Your task to perform on an android device: Add energizer triple a to the cart on newegg, then select checkout. Image 0: 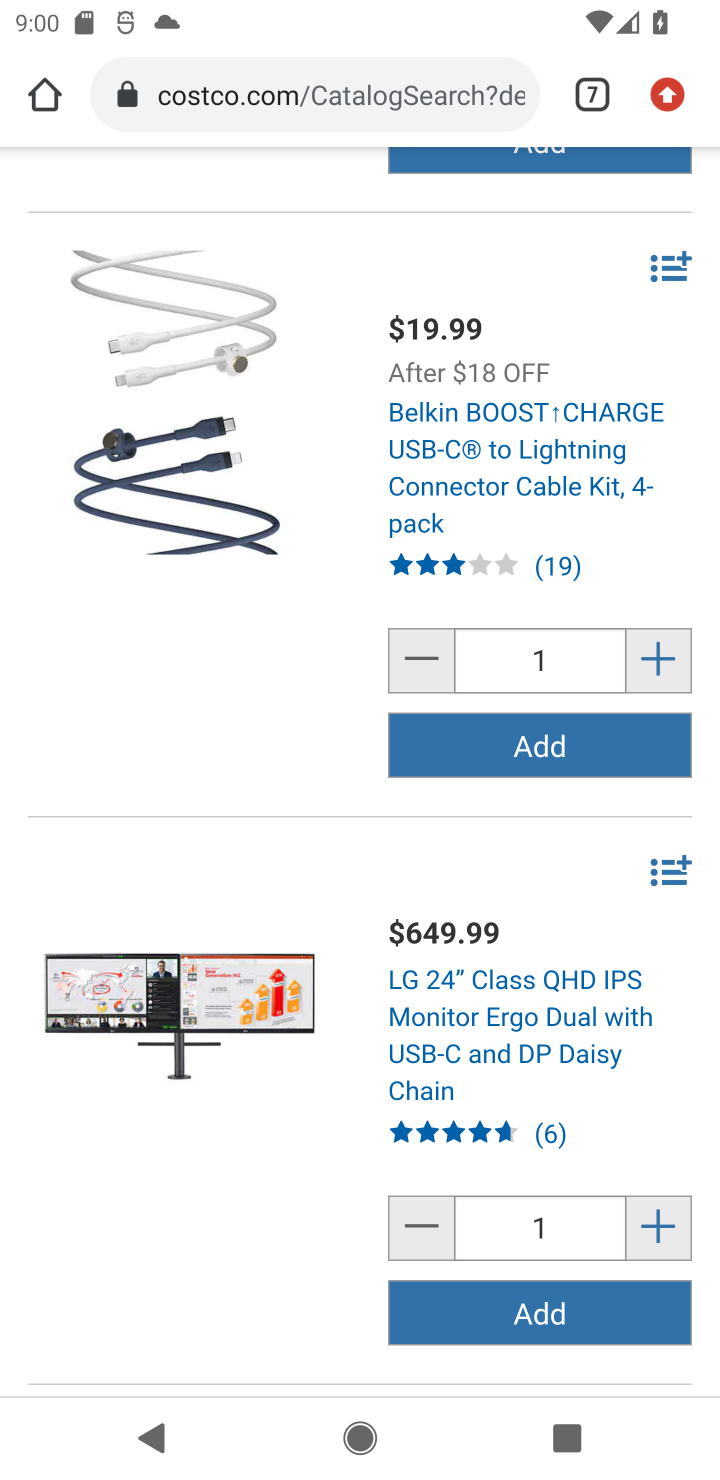
Step 0: press home button
Your task to perform on an android device: Add energizer triple a to the cart on newegg, then select checkout. Image 1: 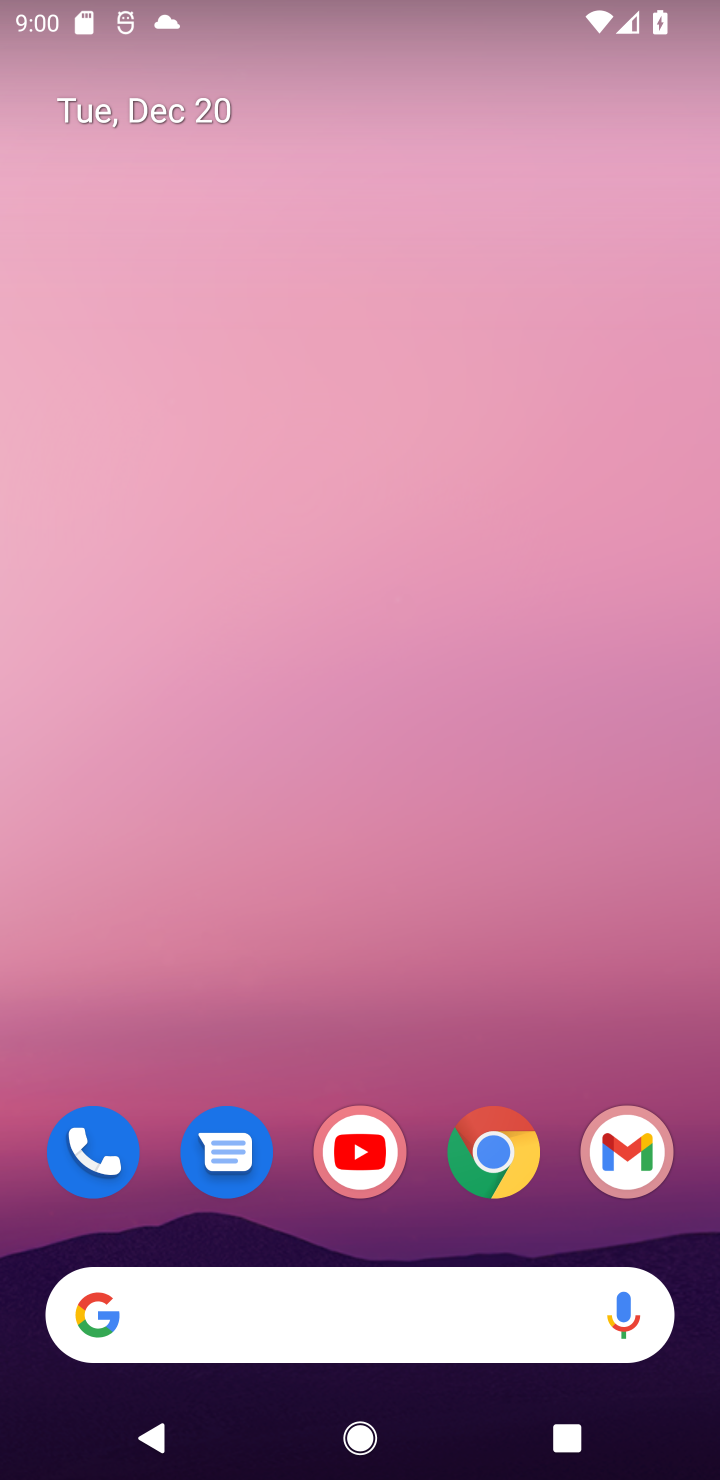
Step 1: click (477, 1149)
Your task to perform on an android device: Add energizer triple a to the cart on newegg, then select checkout. Image 2: 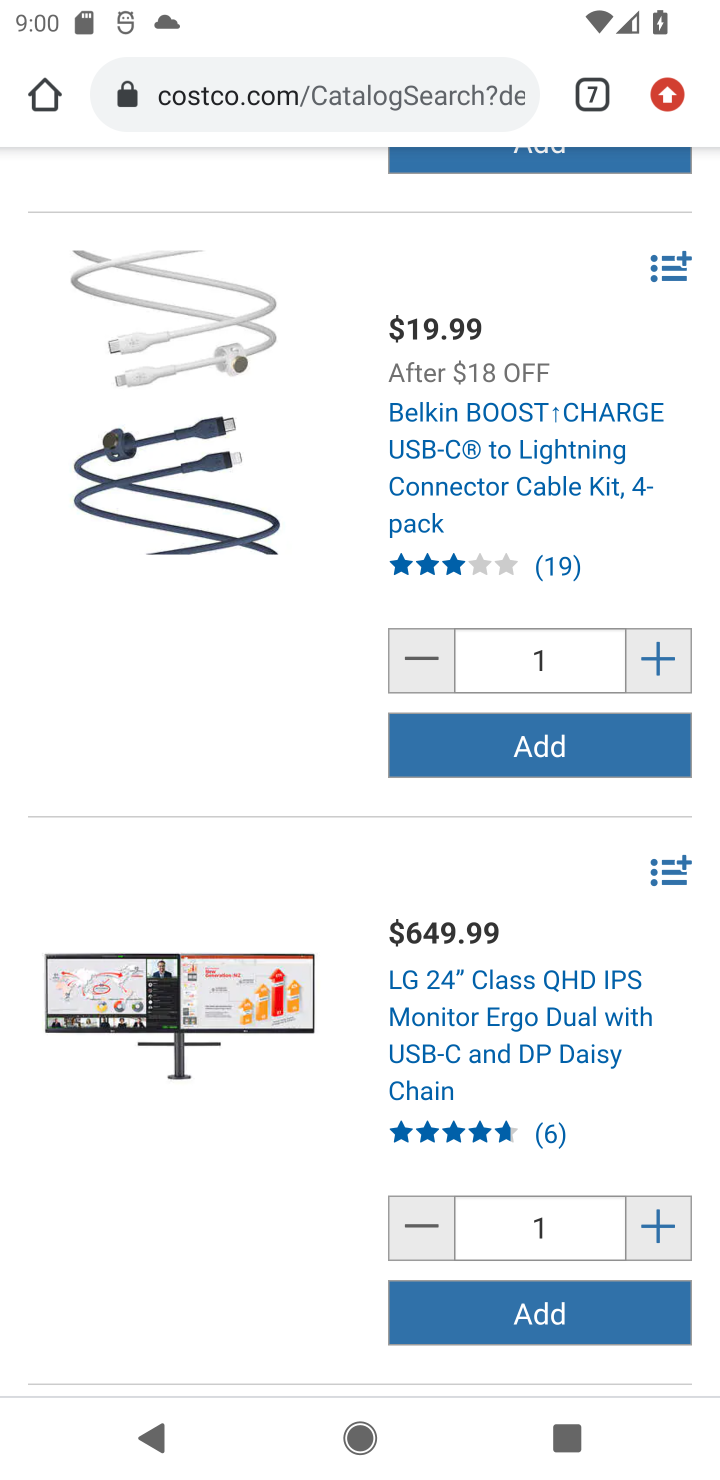
Step 2: click (585, 94)
Your task to perform on an android device: Add energizer triple a to the cart on newegg, then select checkout. Image 3: 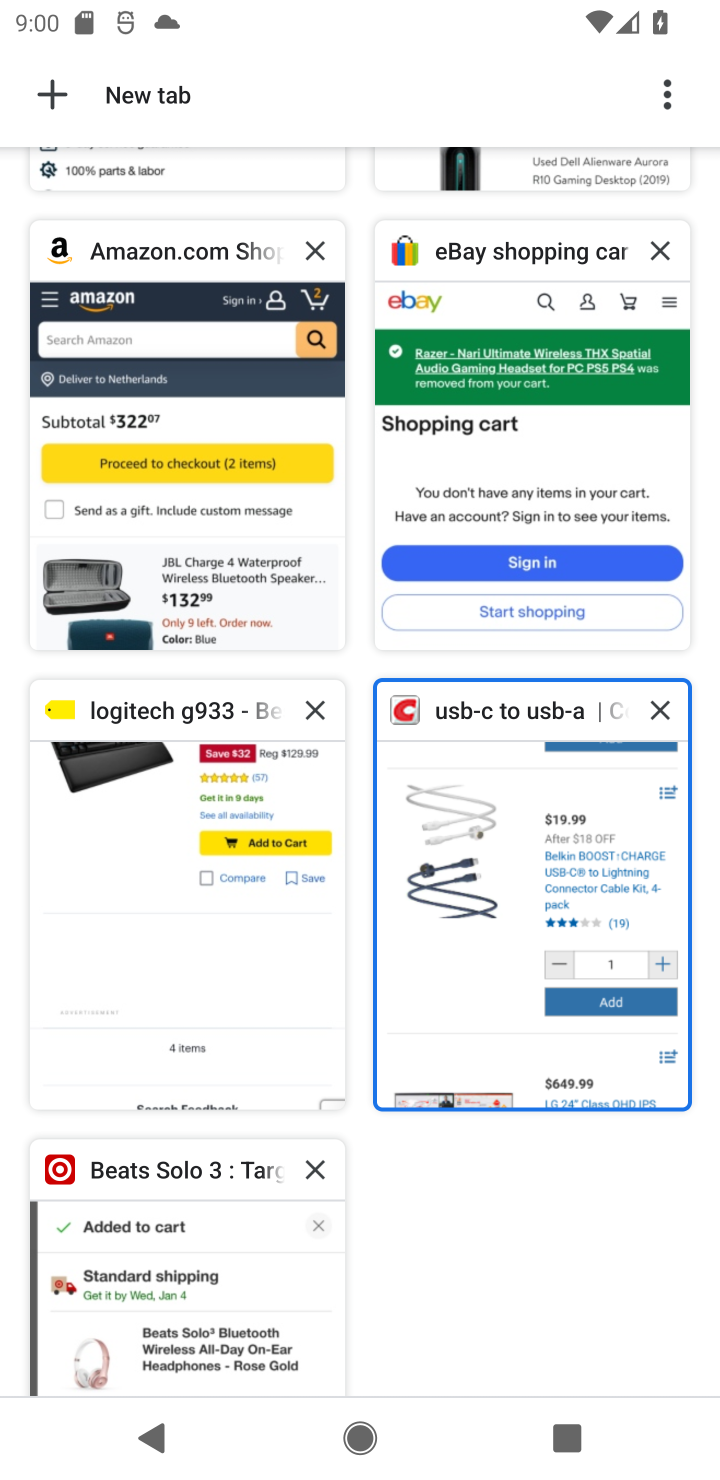
Step 3: drag from (214, 281) to (224, 947)
Your task to perform on an android device: Add energizer triple a to the cart on newegg, then select checkout. Image 4: 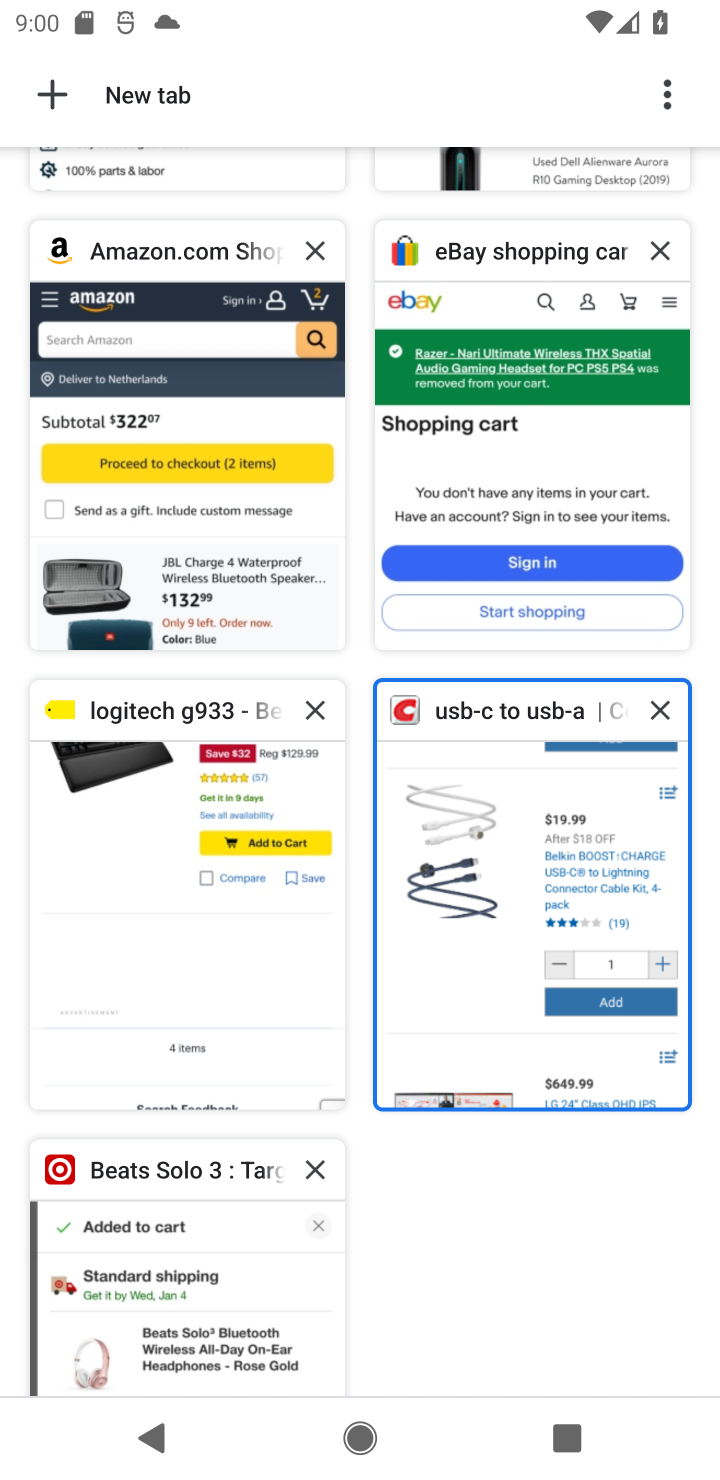
Step 4: click (281, 164)
Your task to perform on an android device: Add energizer triple a to the cart on newegg, then select checkout. Image 5: 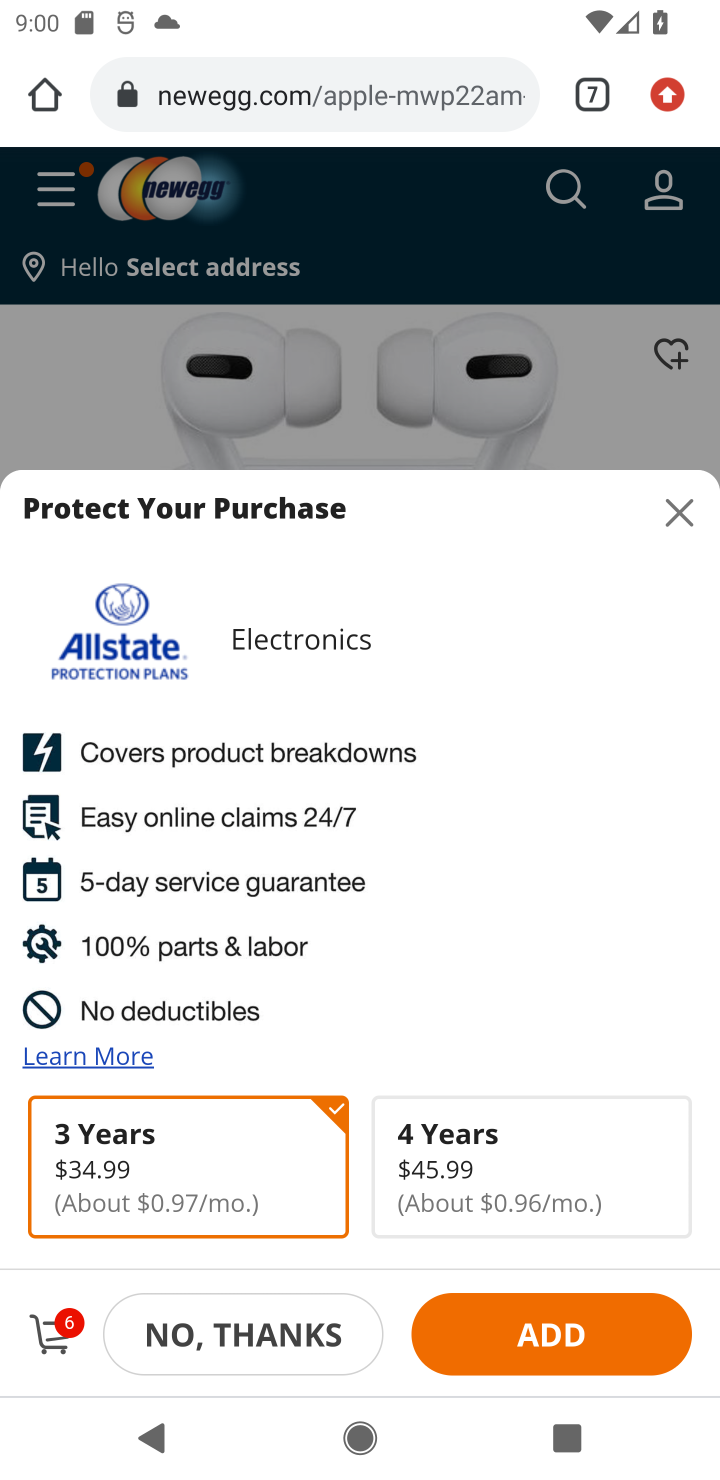
Step 5: click (676, 506)
Your task to perform on an android device: Add energizer triple a to the cart on newegg, then select checkout. Image 6: 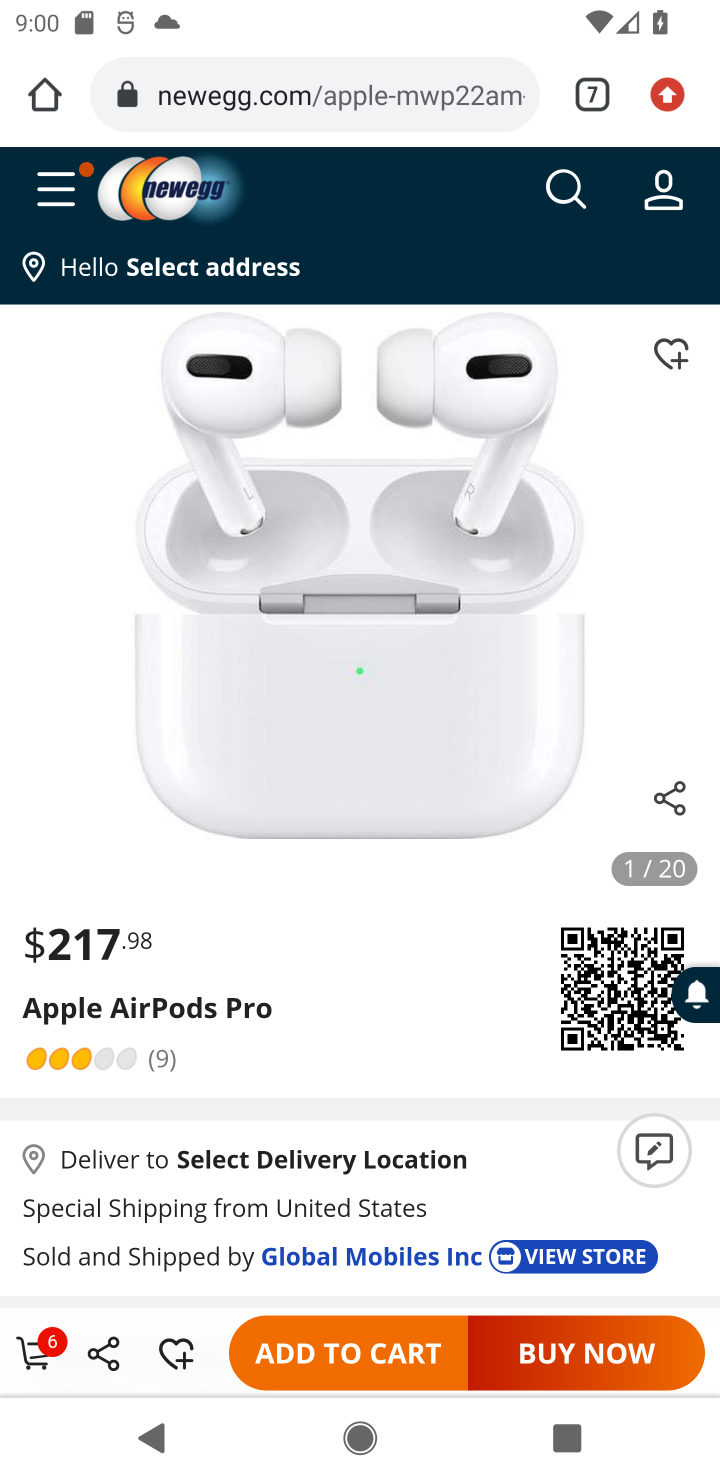
Step 6: click (577, 201)
Your task to perform on an android device: Add energizer triple a to the cart on newegg, then select checkout. Image 7: 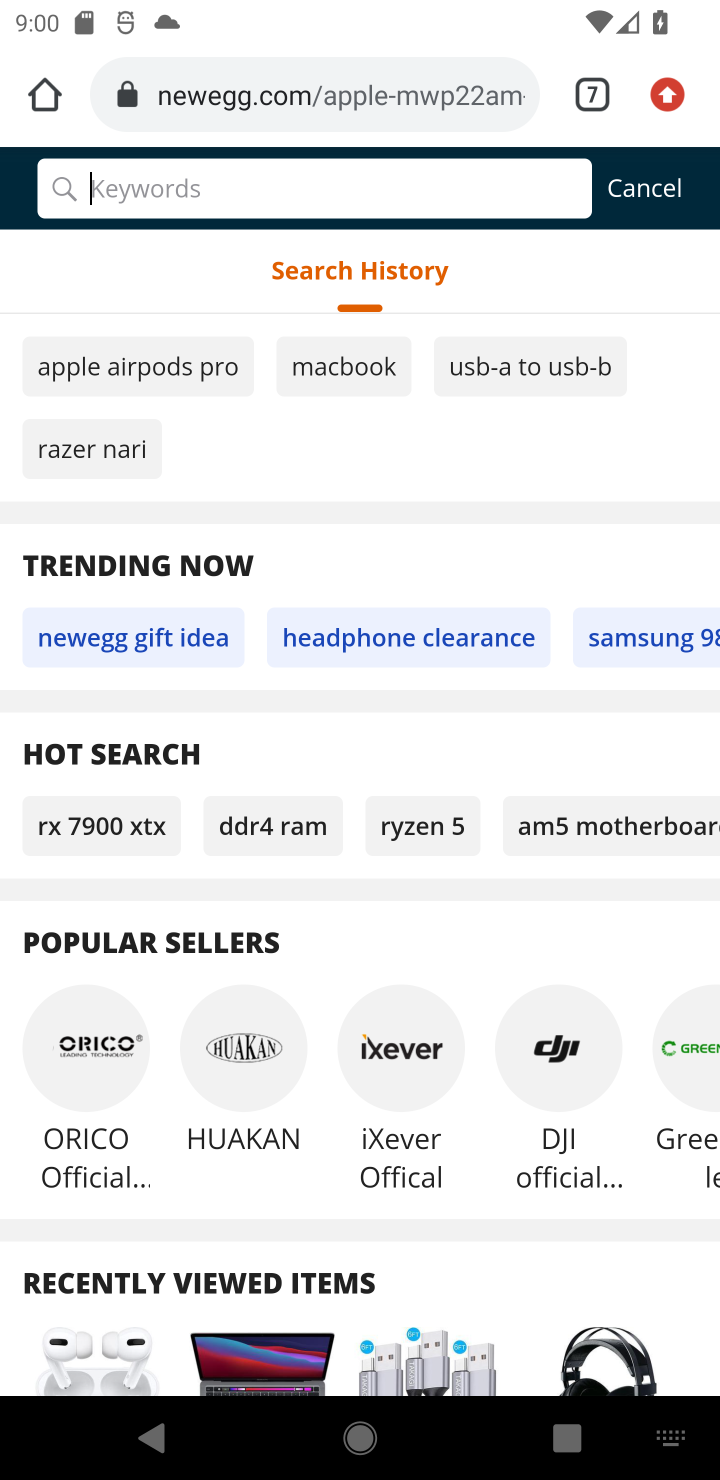
Step 7: type "energizer triple a battery"
Your task to perform on an android device: Add energizer triple a to the cart on newegg, then select checkout. Image 8: 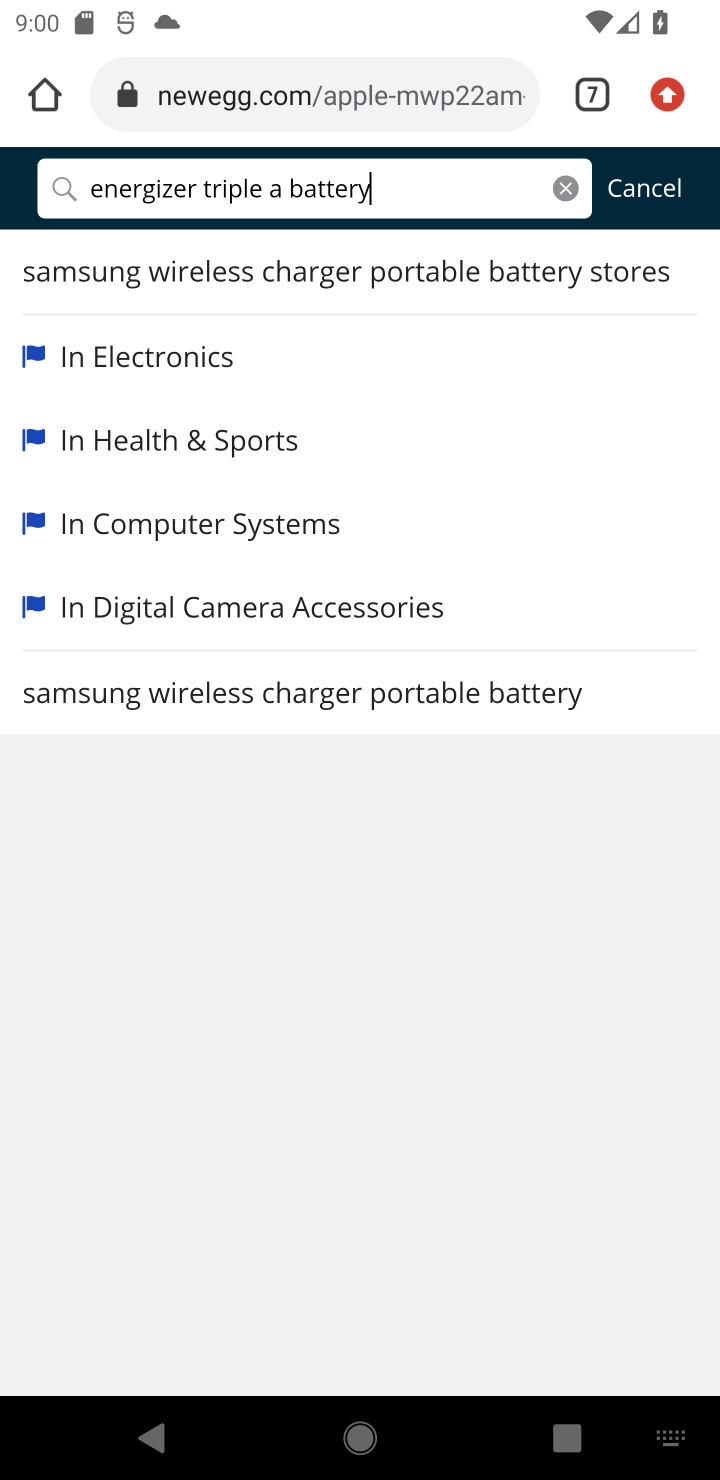
Step 8: press enter
Your task to perform on an android device: Add energizer triple a to the cart on newegg, then select checkout. Image 9: 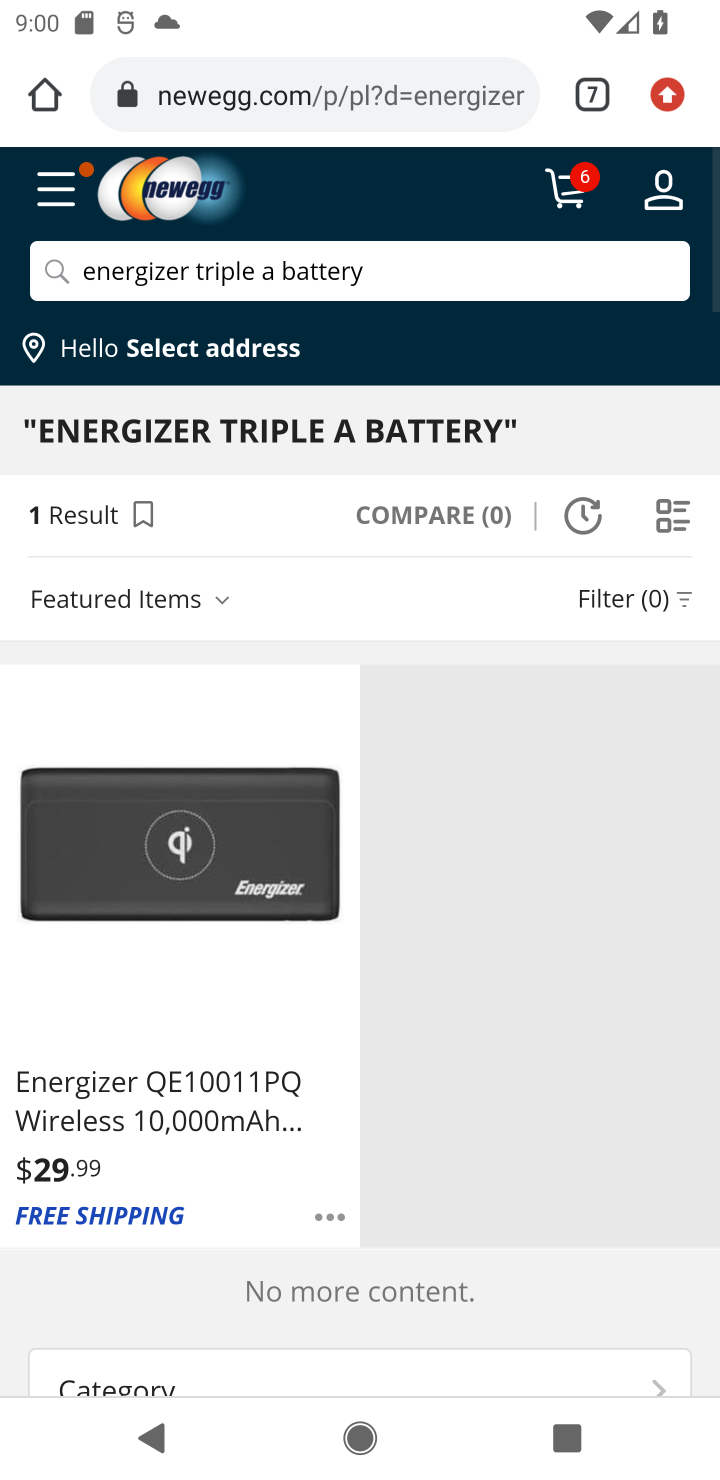
Step 9: task complete